Your task to perform on an android device: turn off notifications settings in the gmail app Image 0: 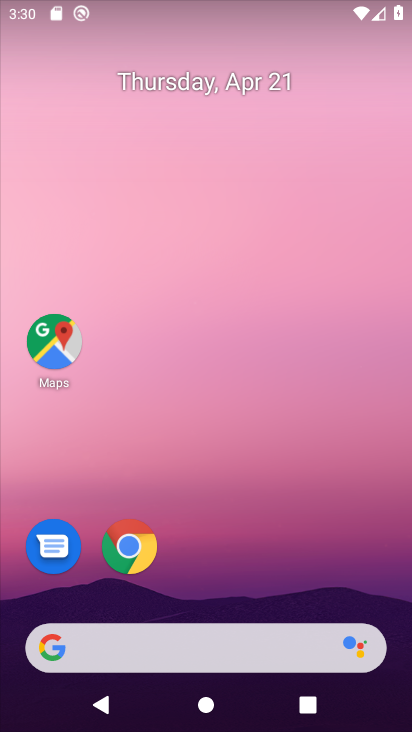
Step 0: drag from (193, 615) to (288, 172)
Your task to perform on an android device: turn off notifications settings in the gmail app Image 1: 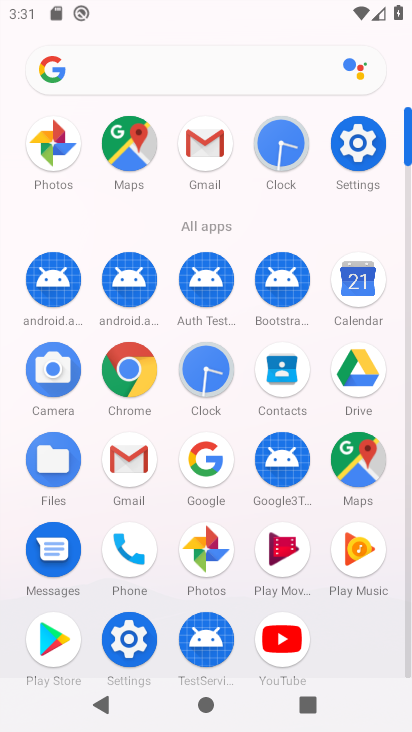
Step 1: click (217, 155)
Your task to perform on an android device: turn off notifications settings in the gmail app Image 2: 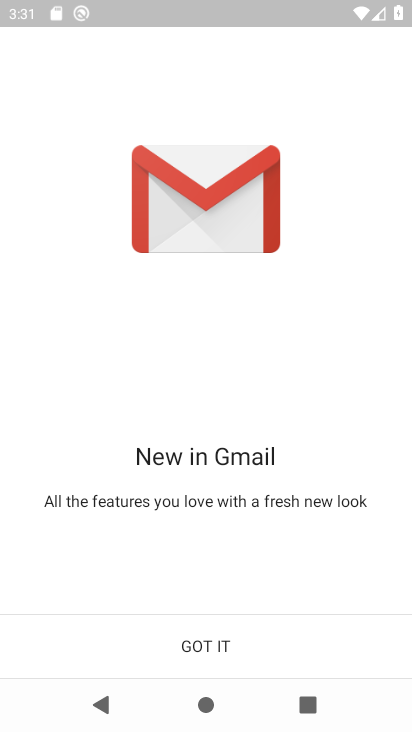
Step 2: click (157, 654)
Your task to perform on an android device: turn off notifications settings in the gmail app Image 3: 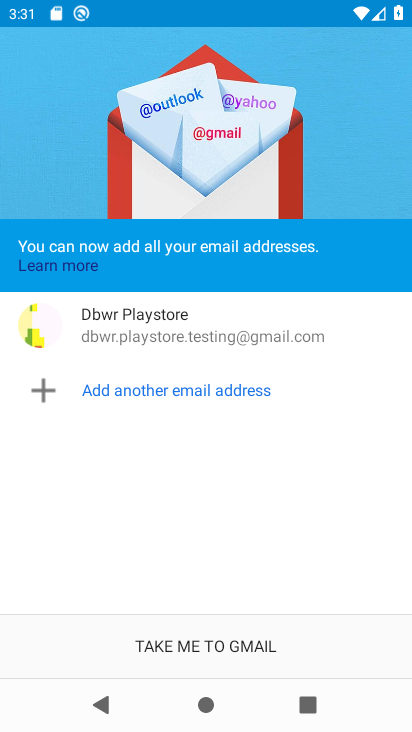
Step 3: click (157, 654)
Your task to perform on an android device: turn off notifications settings in the gmail app Image 4: 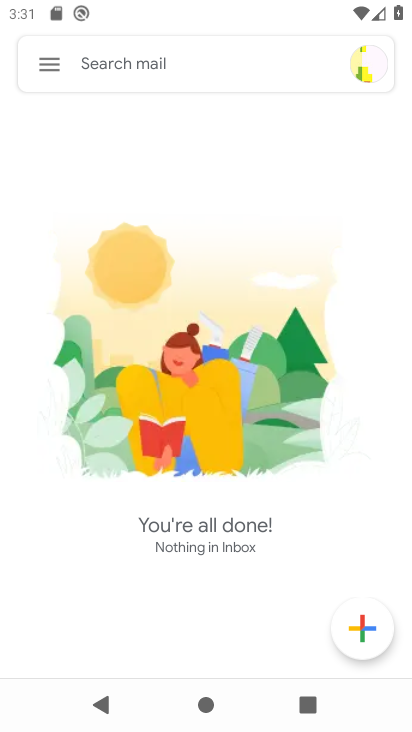
Step 4: click (46, 51)
Your task to perform on an android device: turn off notifications settings in the gmail app Image 5: 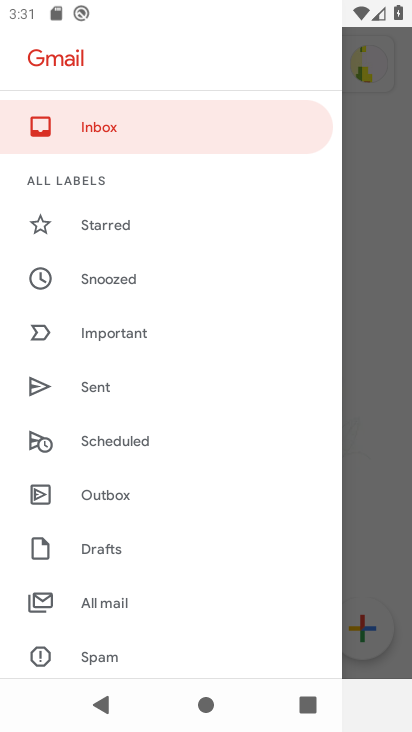
Step 5: drag from (110, 639) to (244, 91)
Your task to perform on an android device: turn off notifications settings in the gmail app Image 6: 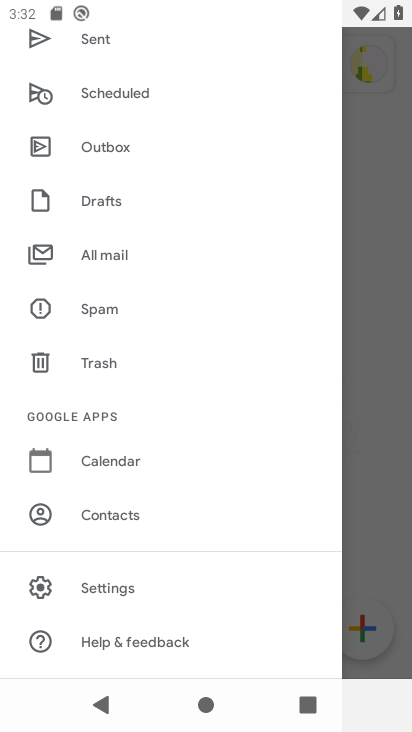
Step 6: click (162, 577)
Your task to perform on an android device: turn off notifications settings in the gmail app Image 7: 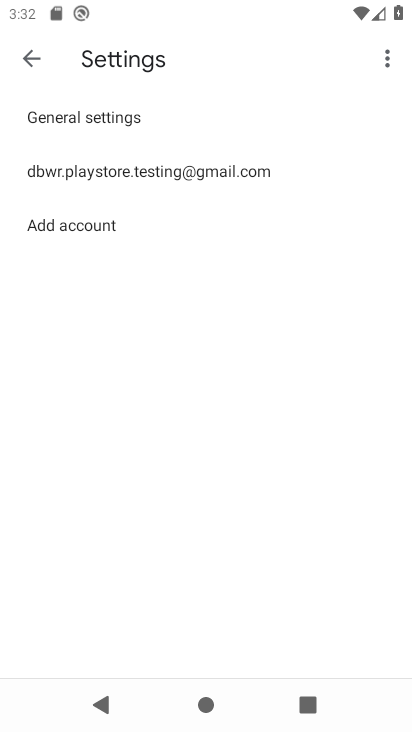
Step 7: click (154, 163)
Your task to perform on an android device: turn off notifications settings in the gmail app Image 8: 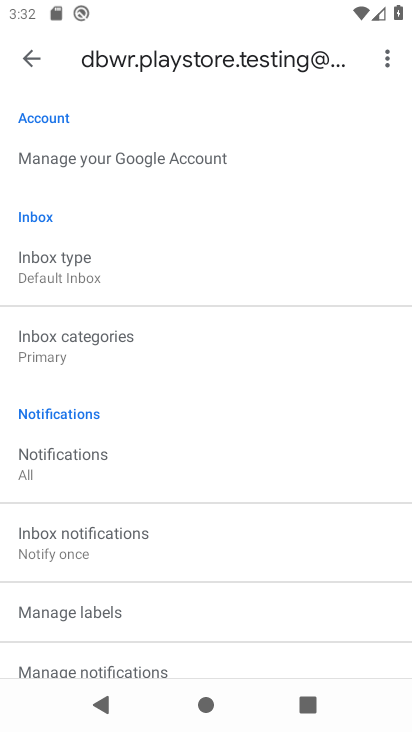
Step 8: click (126, 474)
Your task to perform on an android device: turn off notifications settings in the gmail app Image 9: 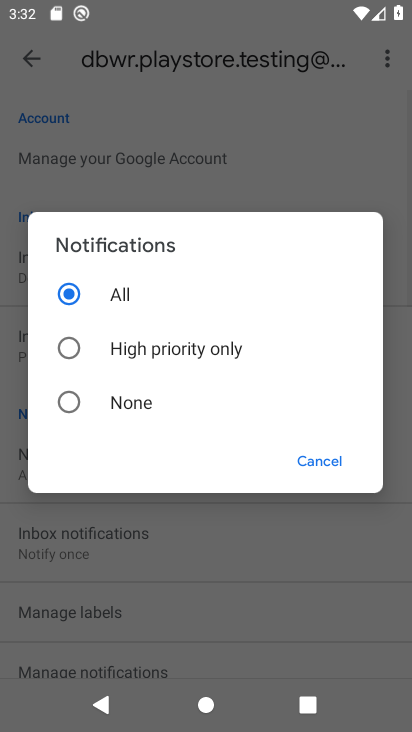
Step 9: click (125, 417)
Your task to perform on an android device: turn off notifications settings in the gmail app Image 10: 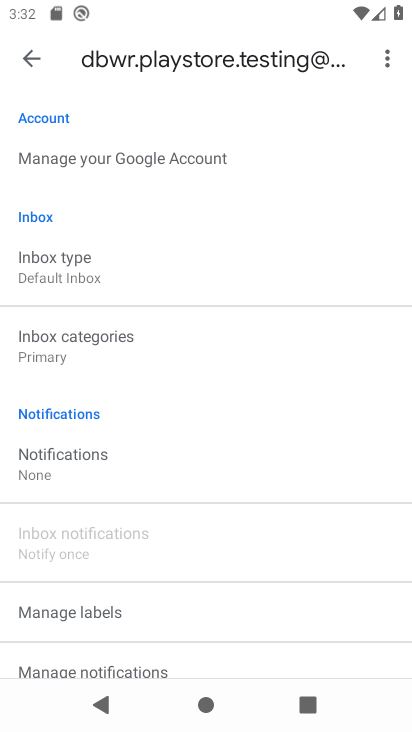
Step 10: task complete